Your task to perform on an android device: move a message to another label in the gmail app Image 0: 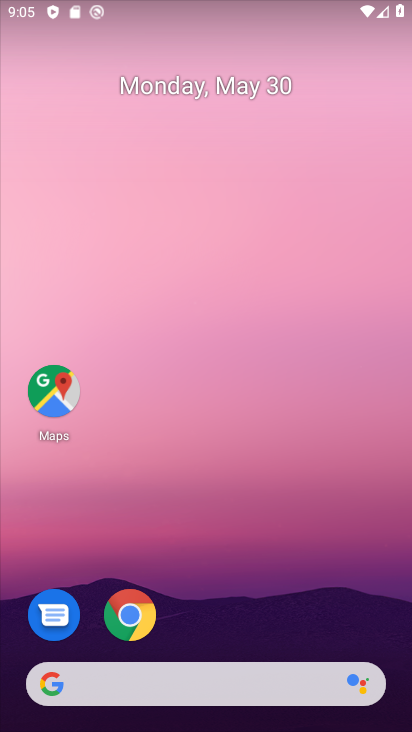
Step 0: drag from (183, 704) to (220, 227)
Your task to perform on an android device: move a message to another label in the gmail app Image 1: 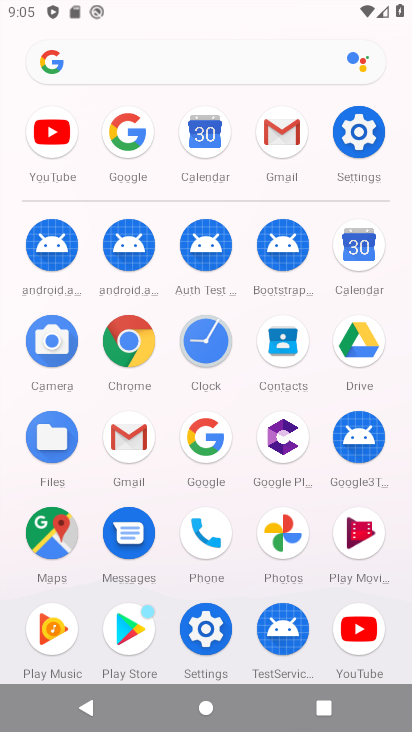
Step 1: click (294, 138)
Your task to perform on an android device: move a message to another label in the gmail app Image 2: 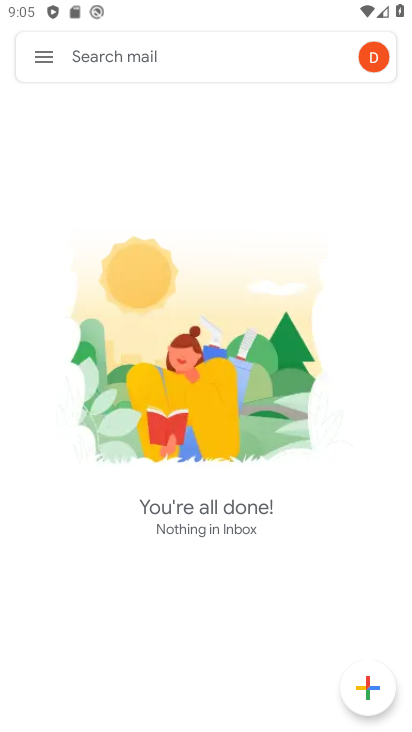
Step 2: click (47, 65)
Your task to perform on an android device: move a message to another label in the gmail app Image 3: 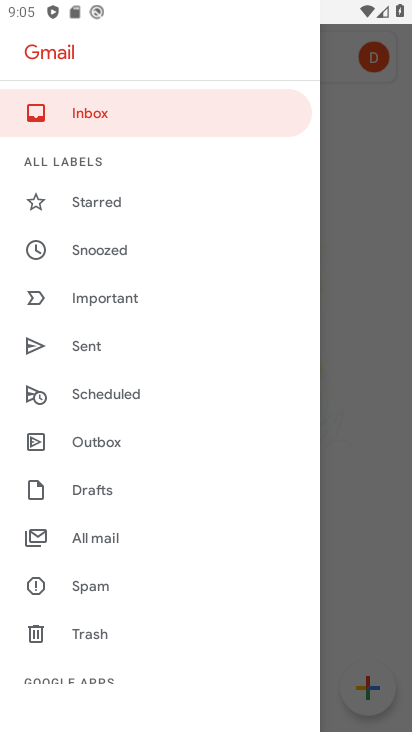
Step 3: click (113, 548)
Your task to perform on an android device: move a message to another label in the gmail app Image 4: 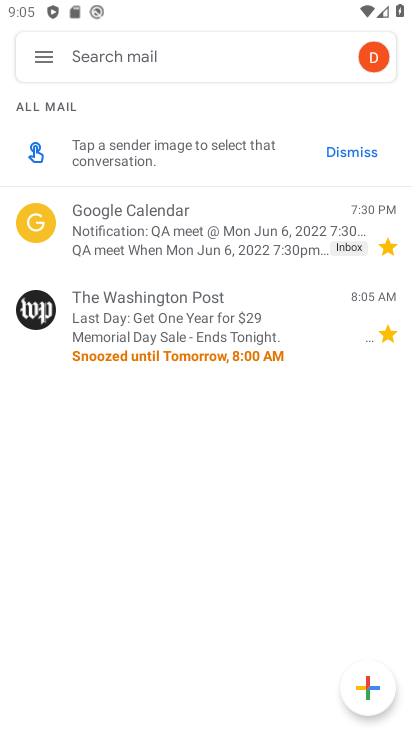
Step 4: click (272, 330)
Your task to perform on an android device: move a message to another label in the gmail app Image 5: 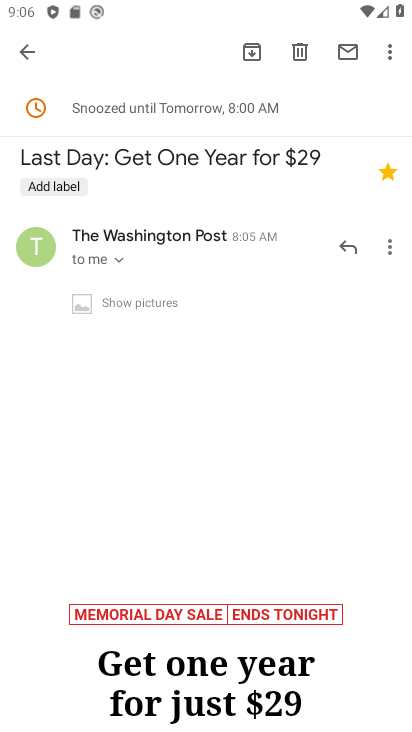
Step 5: click (389, 55)
Your task to perform on an android device: move a message to another label in the gmail app Image 6: 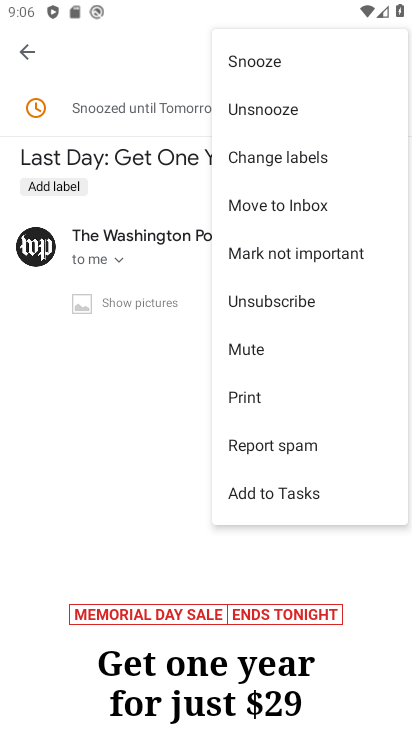
Step 6: click (252, 215)
Your task to perform on an android device: move a message to another label in the gmail app Image 7: 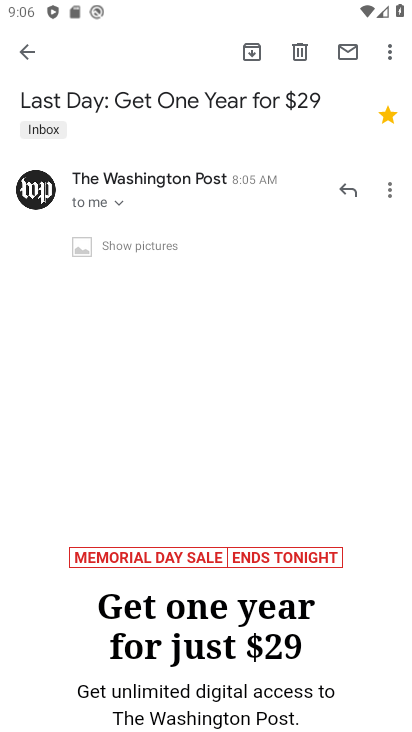
Step 7: click (387, 52)
Your task to perform on an android device: move a message to another label in the gmail app Image 8: 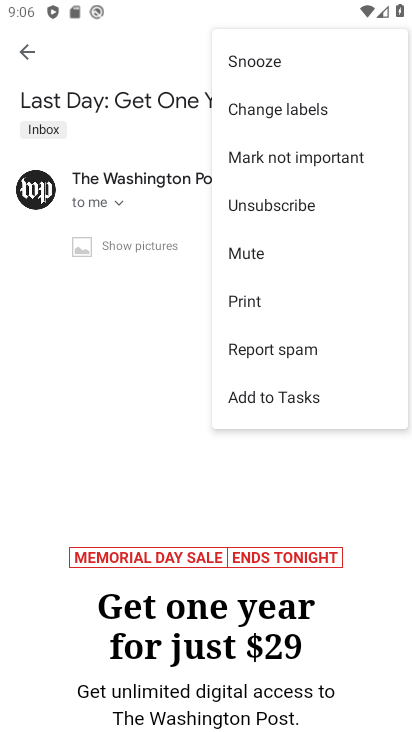
Step 8: click (342, 536)
Your task to perform on an android device: move a message to another label in the gmail app Image 9: 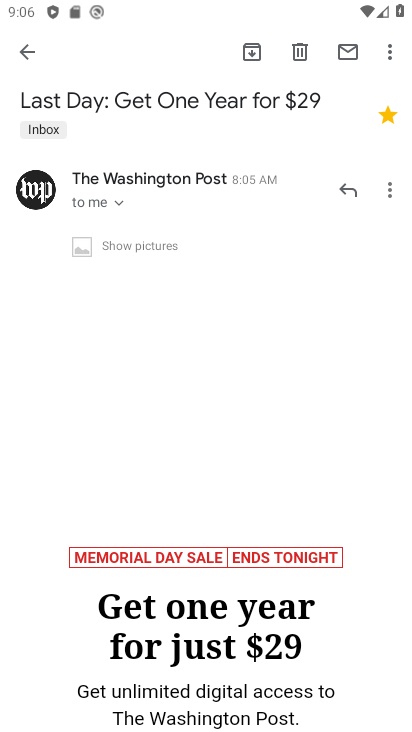
Step 9: click (21, 59)
Your task to perform on an android device: move a message to another label in the gmail app Image 10: 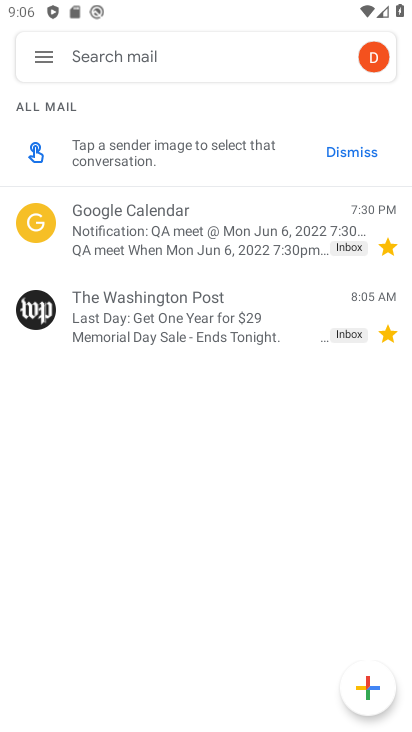
Step 10: click (54, 62)
Your task to perform on an android device: move a message to another label in the gmail app Image 11: 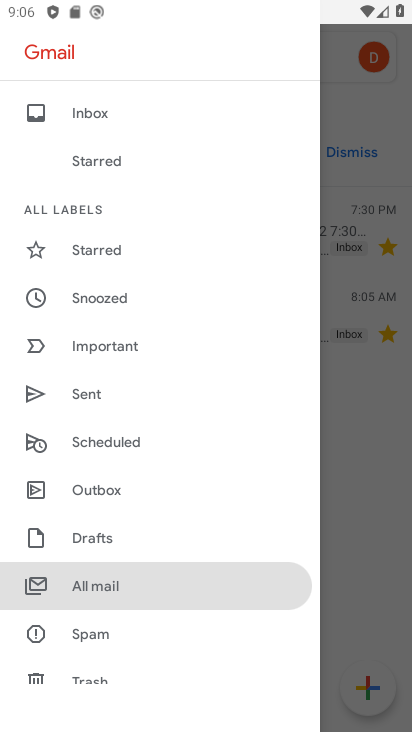
Step 11: click (93, 113)
Your task to perform on an android device: move a message to another label in the gmail app Image 12: 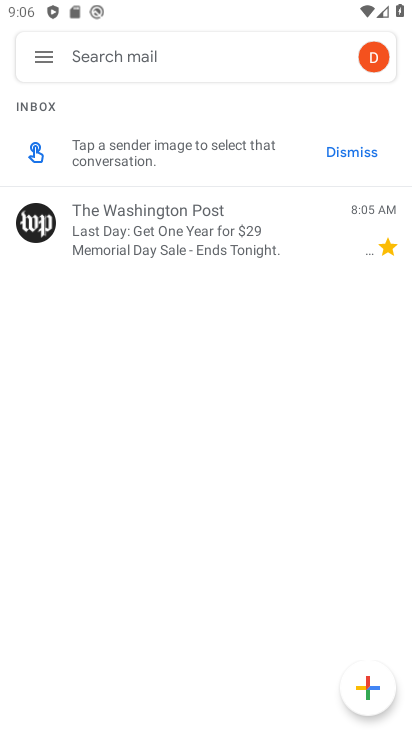
Step 12: task complete